Your task to perform on an android device: Open battery settings Image 0: 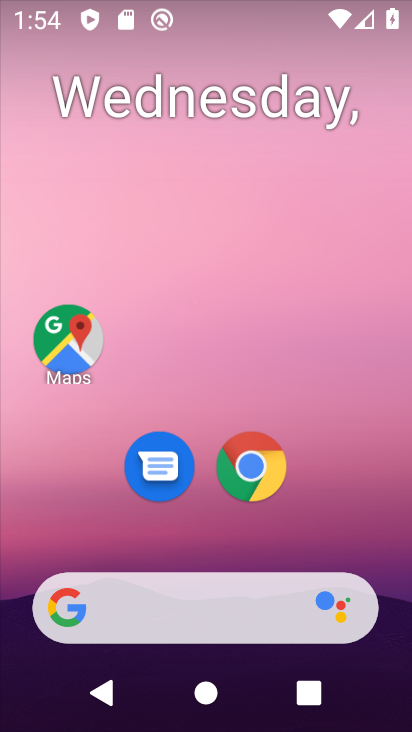
Step 0: drag from (392, 500) to (239, 27)
Your task to perform on an android device: Open battery settings Image 1: 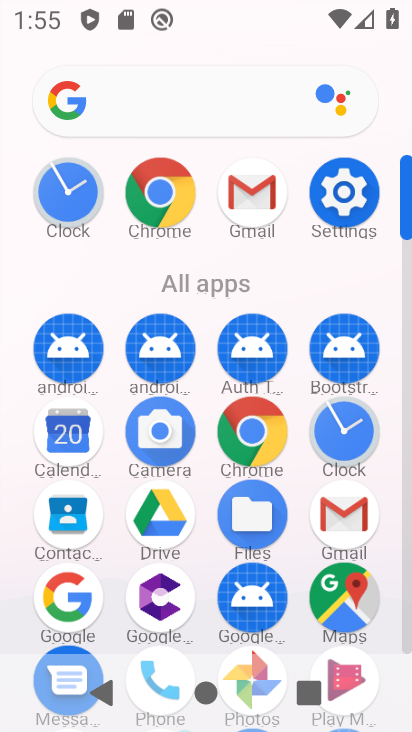
Step 1: drag from (0, 453) to (3, 259)
Your task to perform on an android device: Open battery settings Image 2: 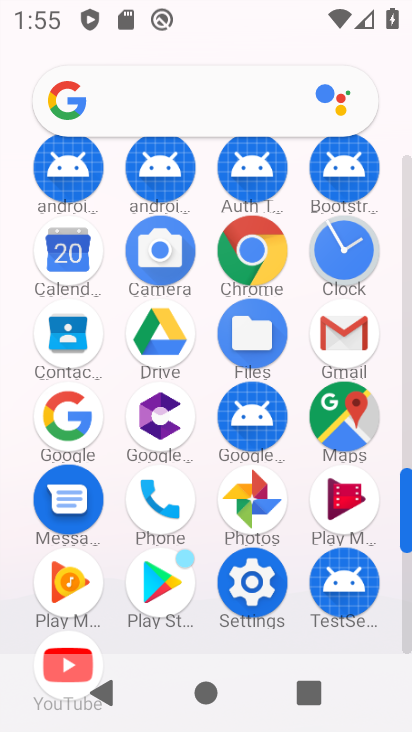
Step 2: click (252, 582)
Your task to perform on an android device: Open battery settings Image 3: 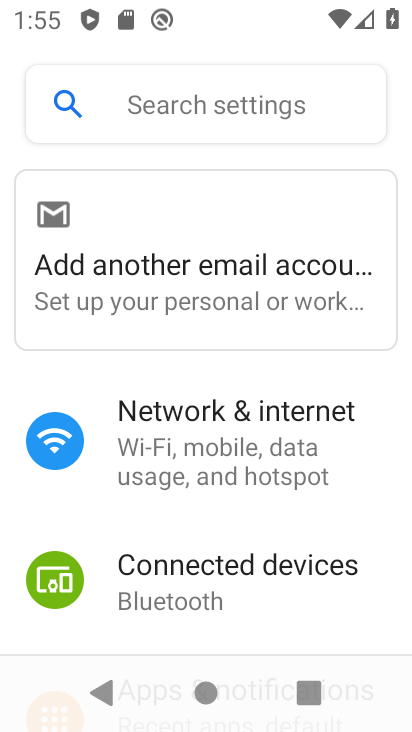
Step 3: drag from (374, 588) to (331, 230)
Your task to perform on an android device: Open battery settings Image 4: 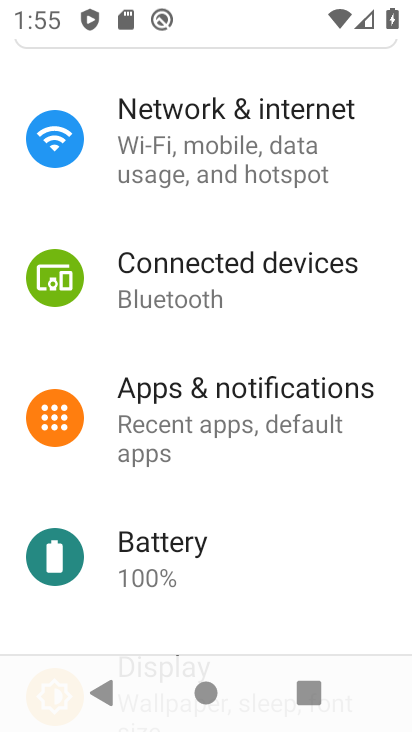
Step 4: drag from (346, 489) to (324, 137)
Your task to perform on an android device: Open battery settings Image 5: 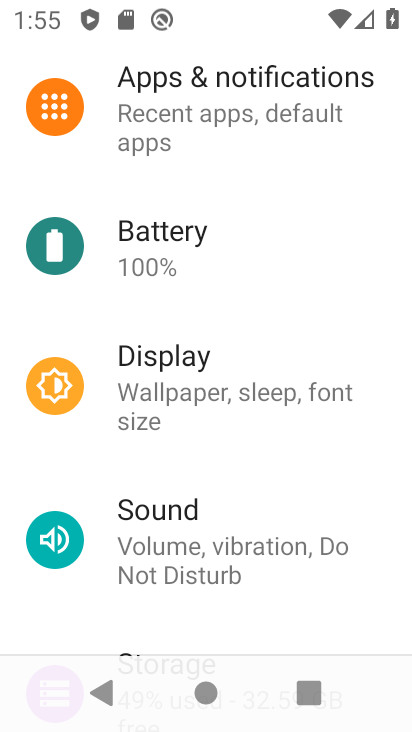
Step 5: click (189, 227)
Your task to perform on an android device: Open battery settings Image 6: 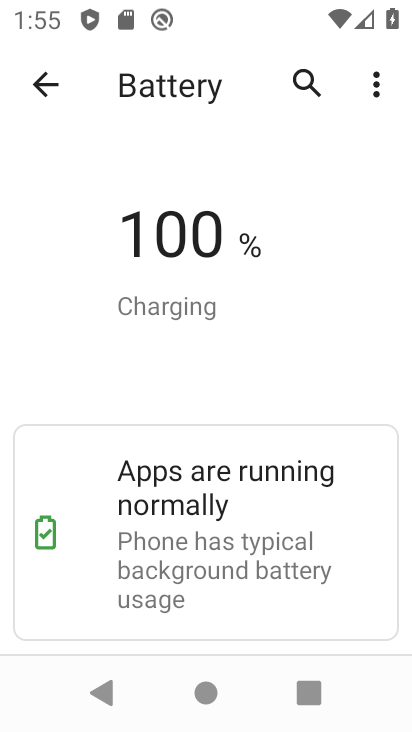
Step 6: task complete